Your task to perform on an android device: What's on my calendar today? Image 0: 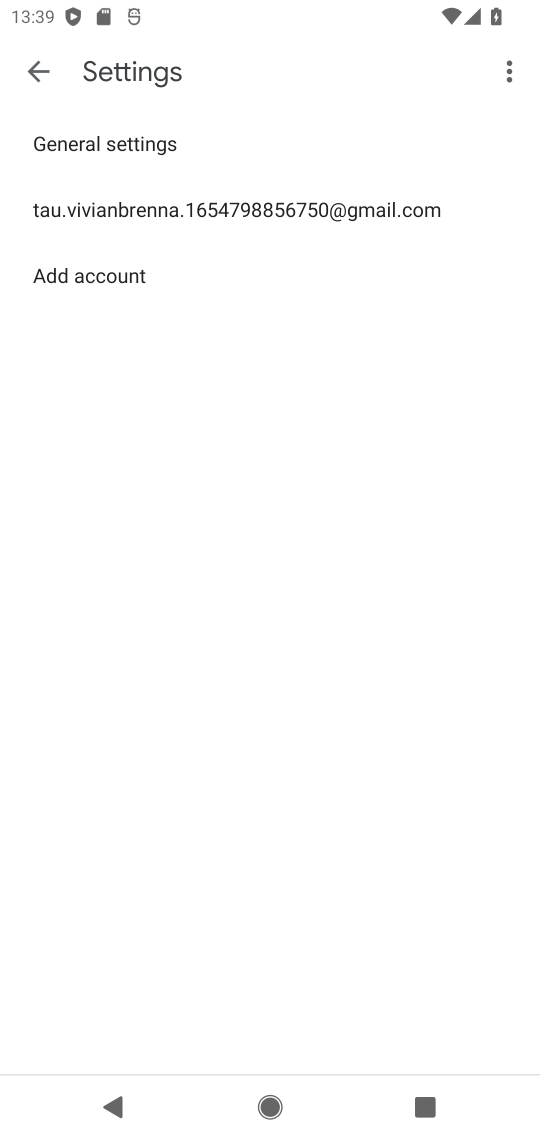
Step 0: press home button
Your task to perform on an android device: What's on my calendar today? Image 1: 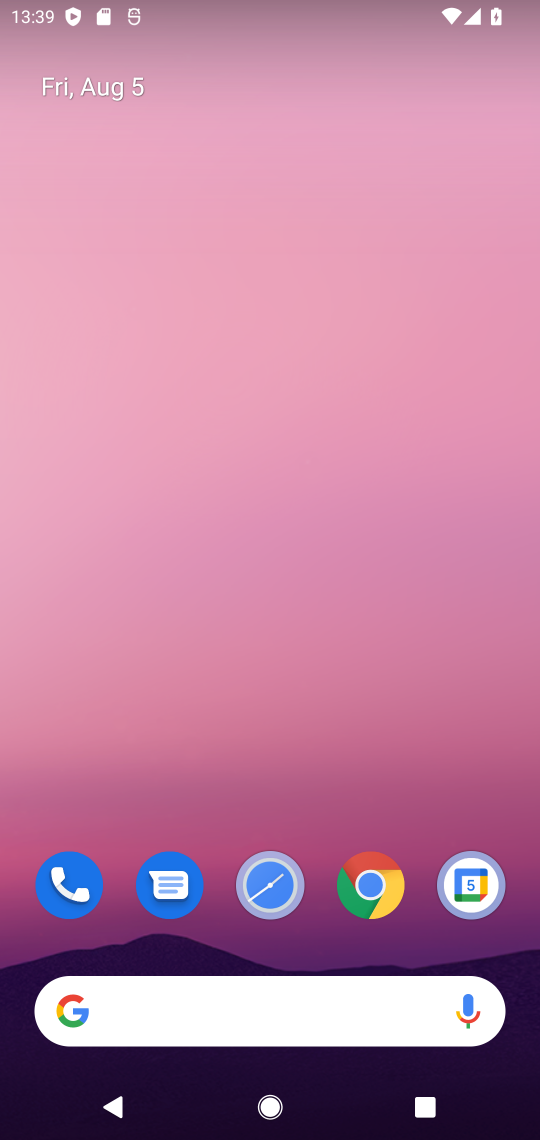
Step 1: drag from (261, 556) to (261, 424)
Your task to perform on an android device: What's on my calendar today? Image 2: 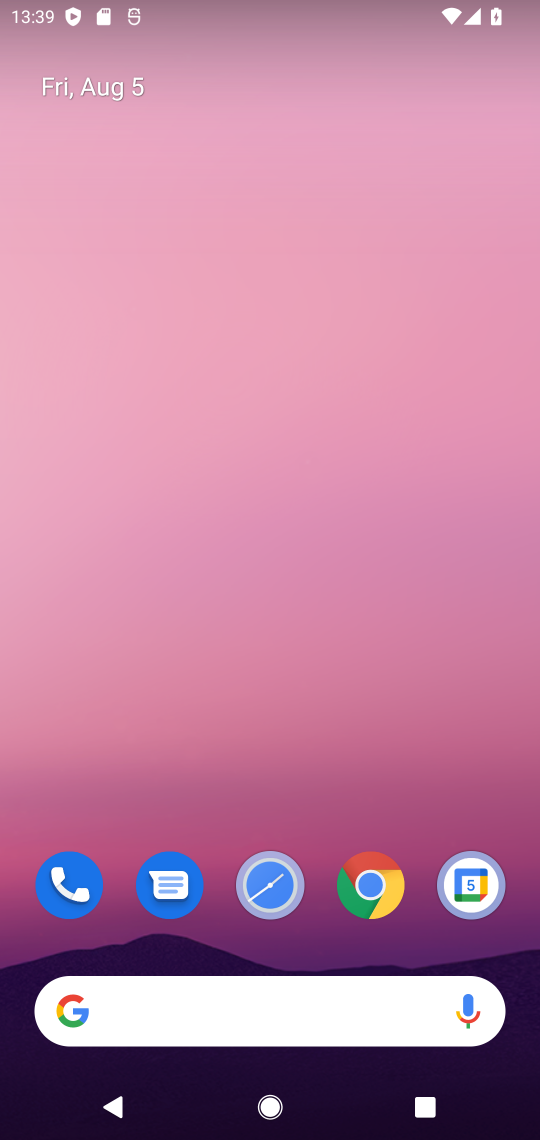
Step 2: click (290, 2)
Your task to perform on an android device: What's on my calendar today? Image 3: 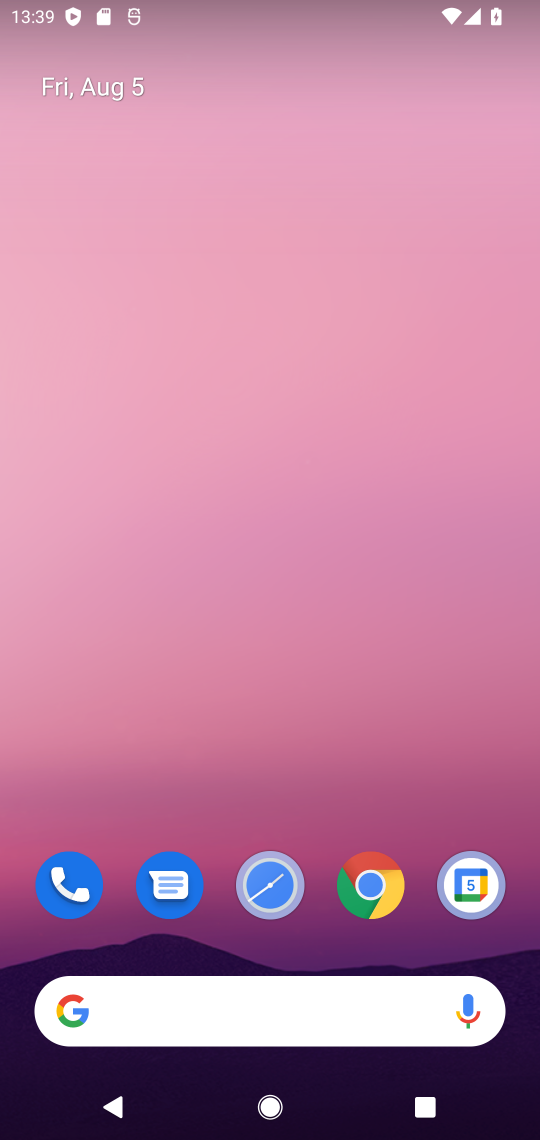
Step 3: drag from (319, 683) to (301, 222)
Your task to perform on an android device: What's on my calendar today? Image 4: 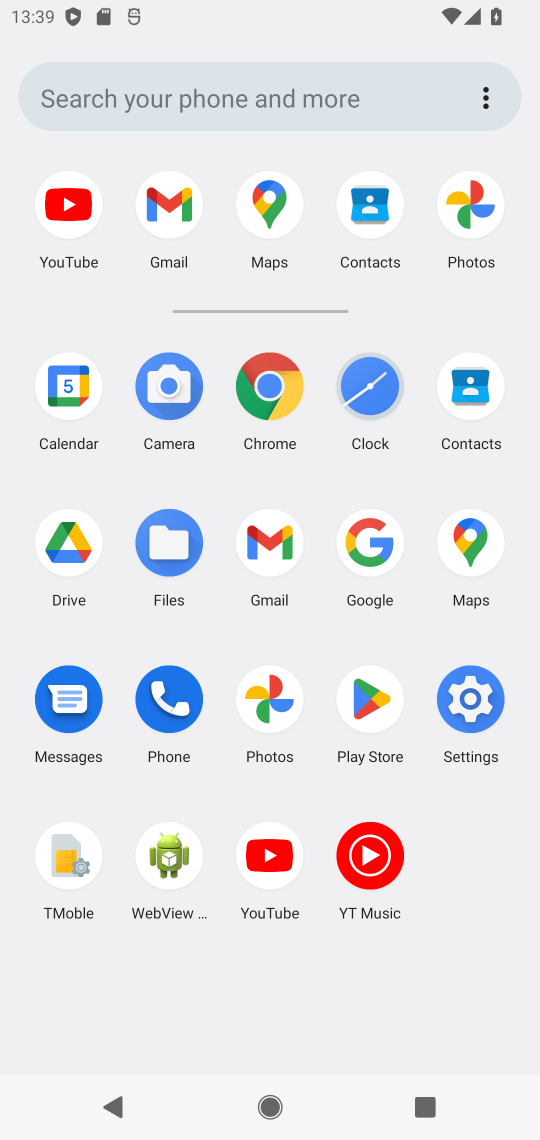
Step 4: click (66, 415)
Your task to perform on an android device: What's on my calendar today? Image 5: 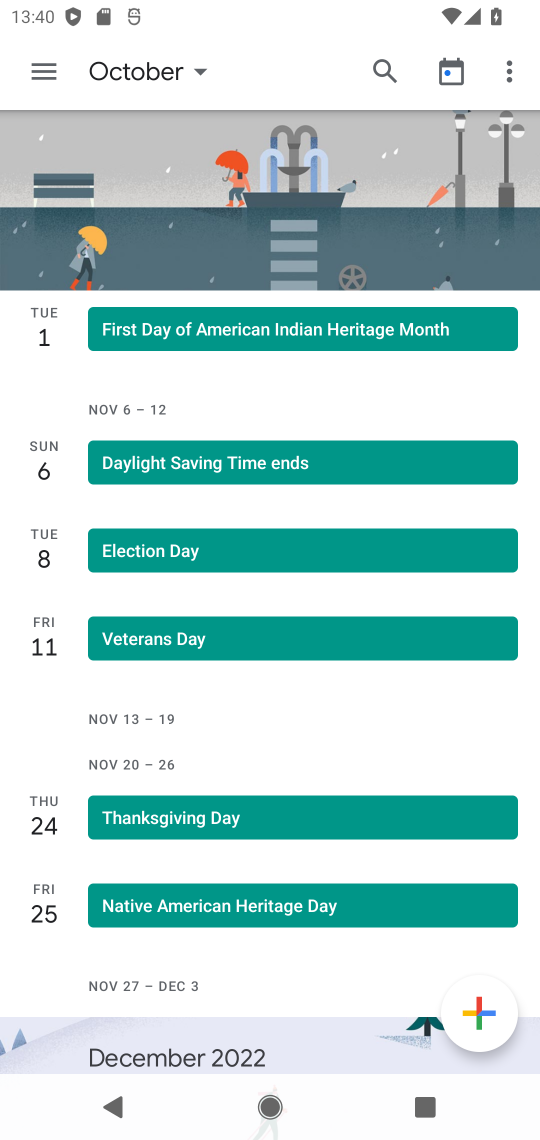
Step 5: click (47, 76)
Your task to perform on an android device: What's on my calendar today? Image 6: 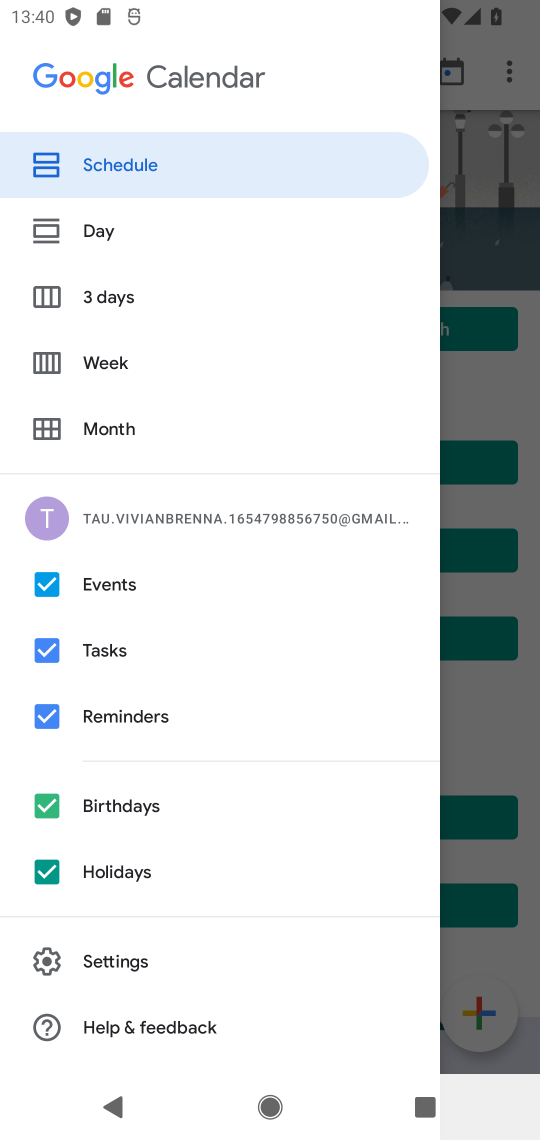
Step 6: click (119, 218)
Your task to perform on an android device: What's on my calendar today? Image 7: 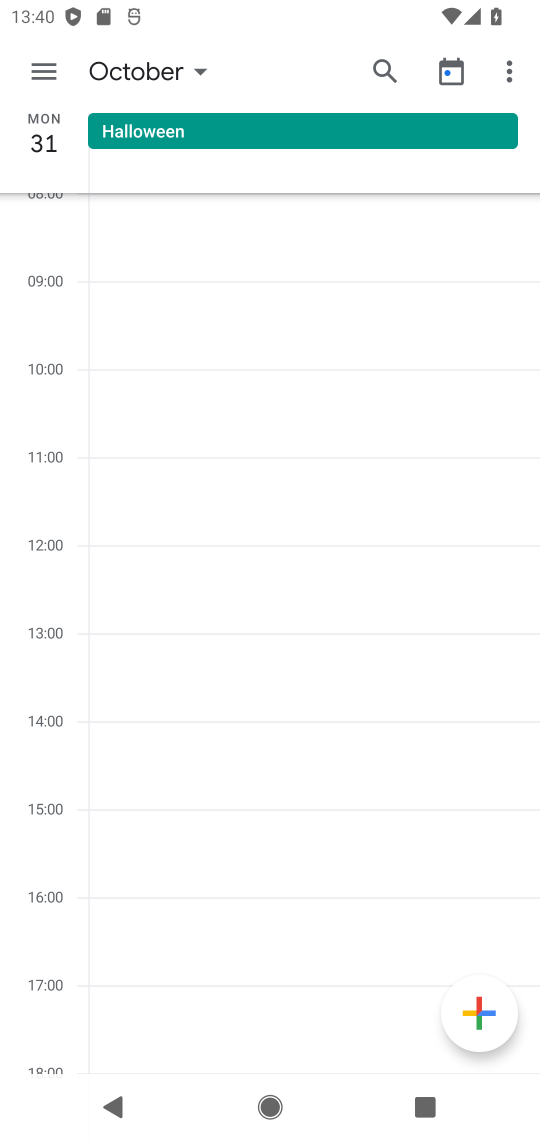
Step 7: click (162, 78)
Your task to perform on an android device: What's on my calendar today? Image 8: 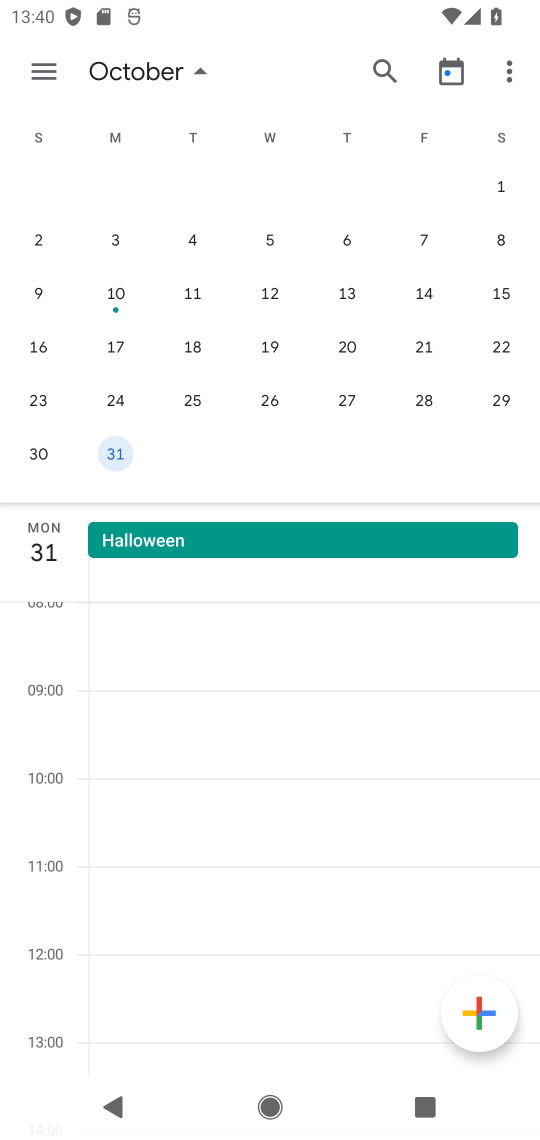
Step 8: drag from (75, 286) to (480, 282)
Your task to perform on an android device: What's on my calendar today? Image 9: 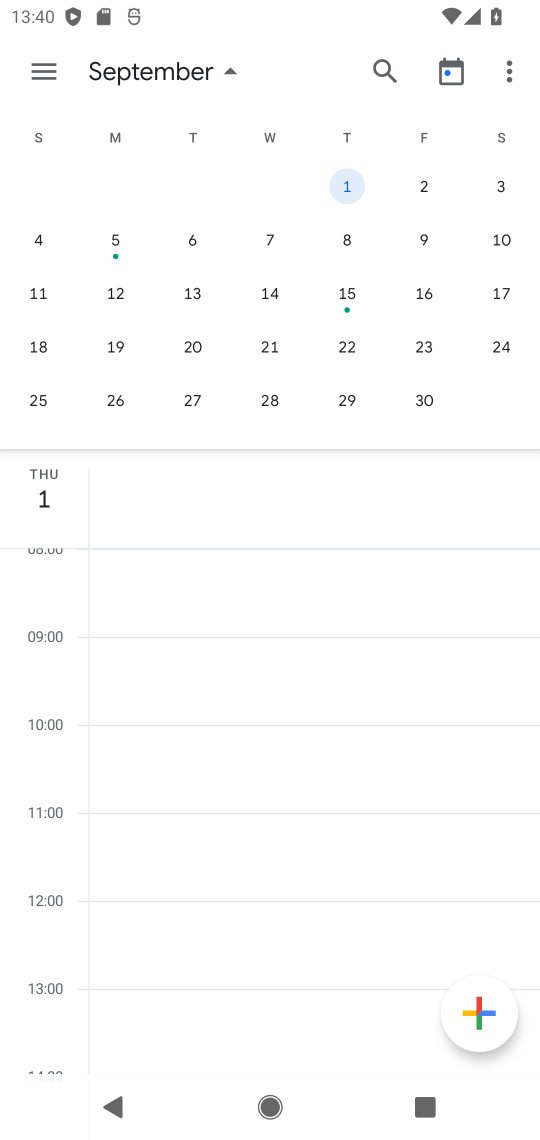
Step 9: drag from (82, 321) to (433, 304)
Your task to perform on an android device: What's on my calendar today? Image 10: 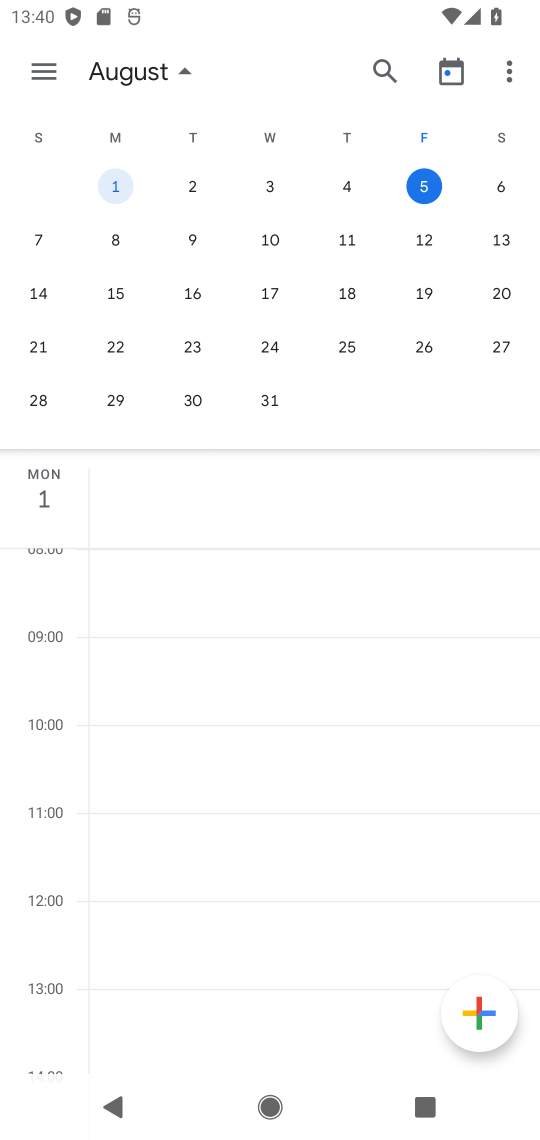
Step 10: drag from (119, 274) to (537, 301)
Your task to perform on an android device: What's on my calendar today? Image 11: 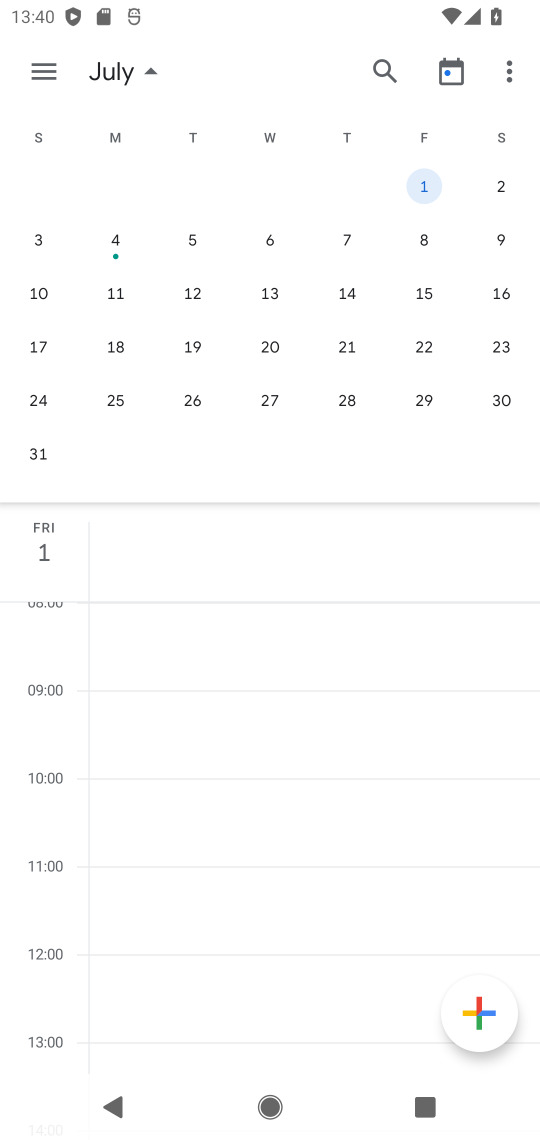
Step 11: drag from (465, 297) to (79, 226)
Your task to perform on an android device: What's on my calendar today? Image 12: 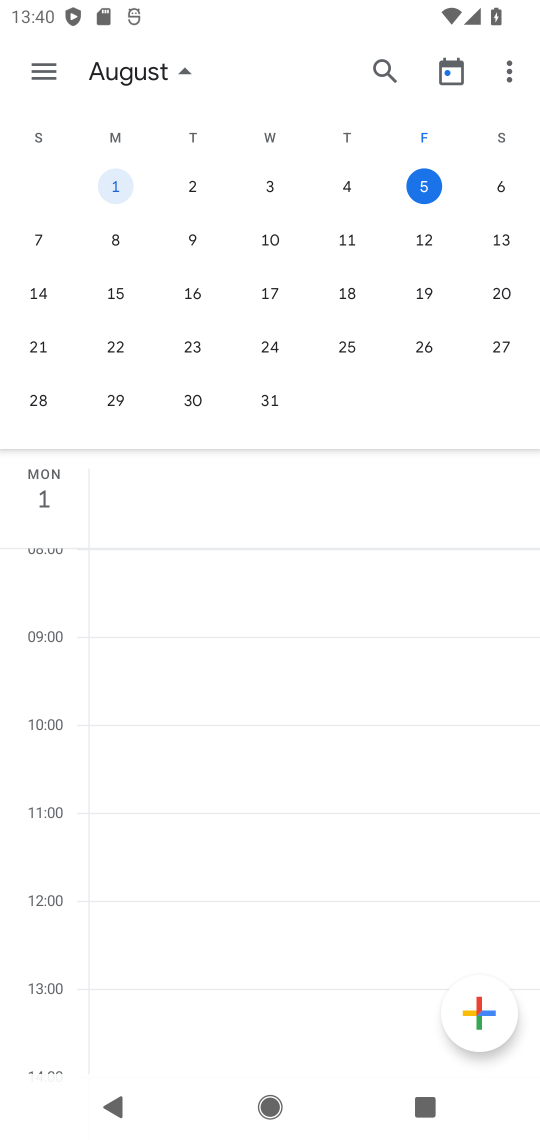
Step 12: click (427, 186)
Your task to perform on an android device: What's on my calendar today? Image 13: 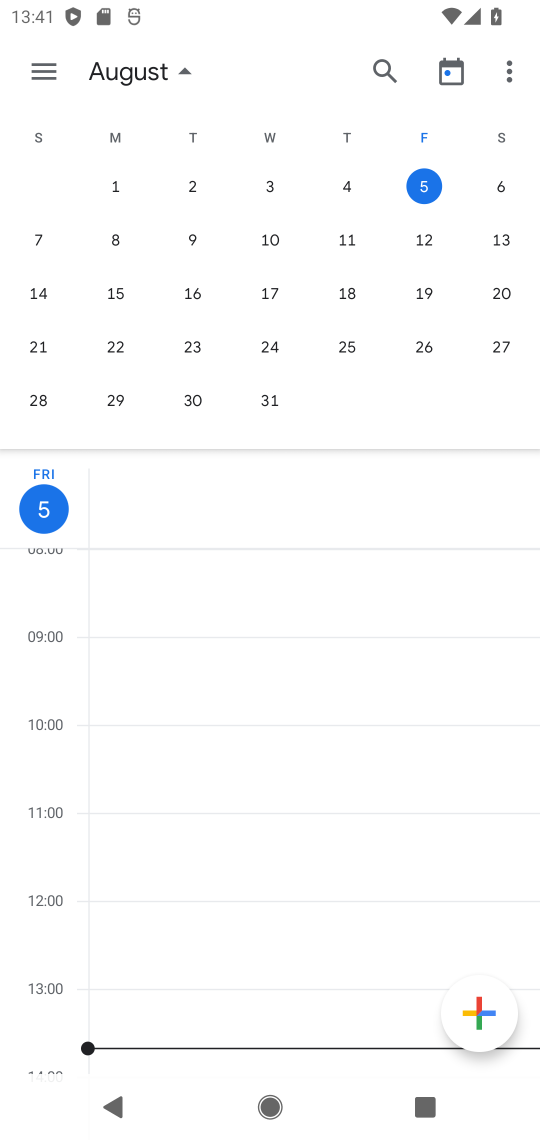
Step 13: task complete